Your task to perform on an android device: check battery use Image 0: 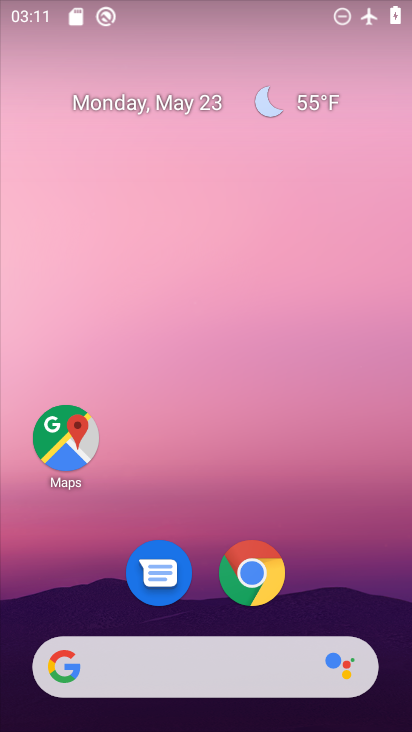
Step 0: drag from (311, 590) to (277, 43)
Your task to perform on an android device: check battery use Image 1: 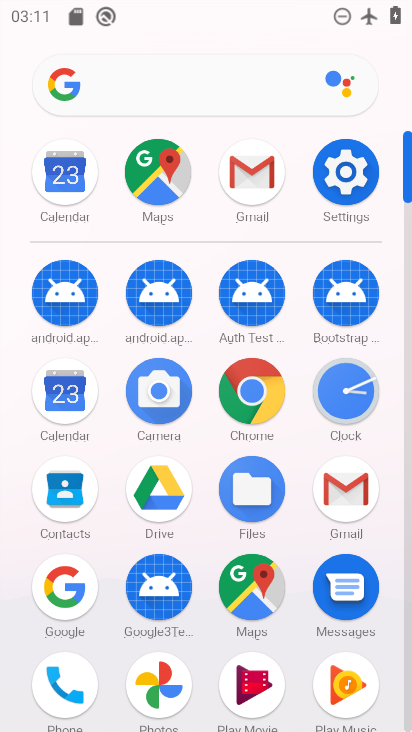
Step 1: click (356, 164)
Your task to perform on an android device: check battery use Image 2: 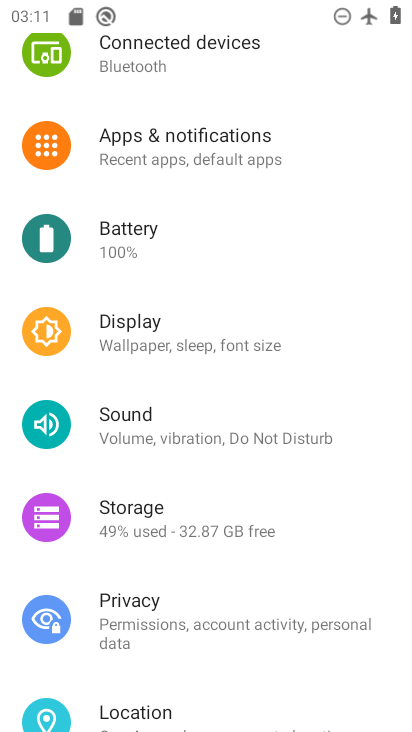
Step 2: click (167, 239)
Your task to perform on an android device: check battery use Image 3: 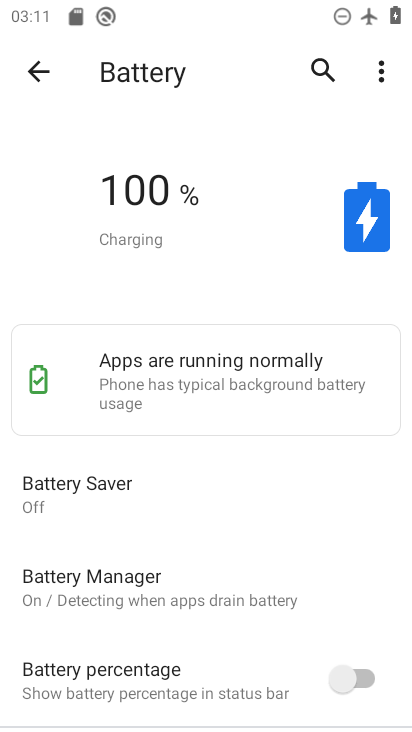
Step 3: click (385, 69)
Your task to perform on an android device: check battery use Image 4: 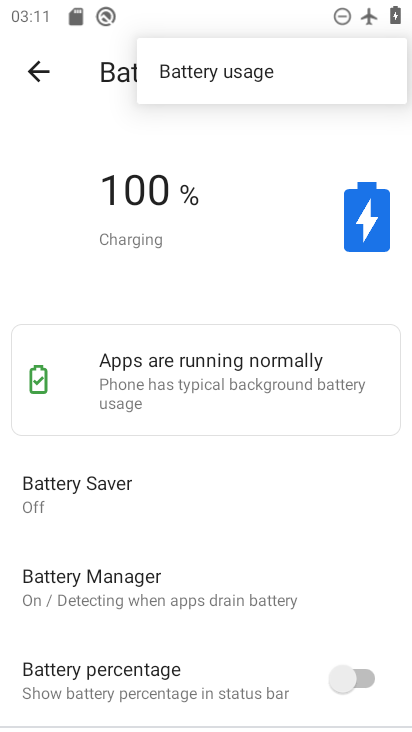
Step 4: click (286, 68)
Your task to perform on an android device: check battery use Image 5: 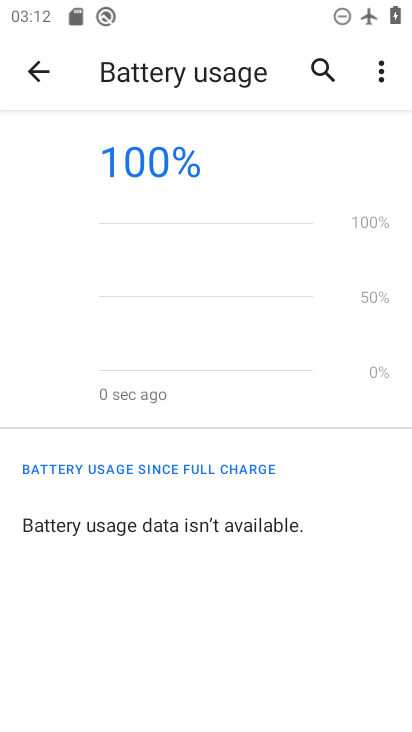
Step 5: task complete